Your task to perform on an android device: toggle sleep mode Image 0: 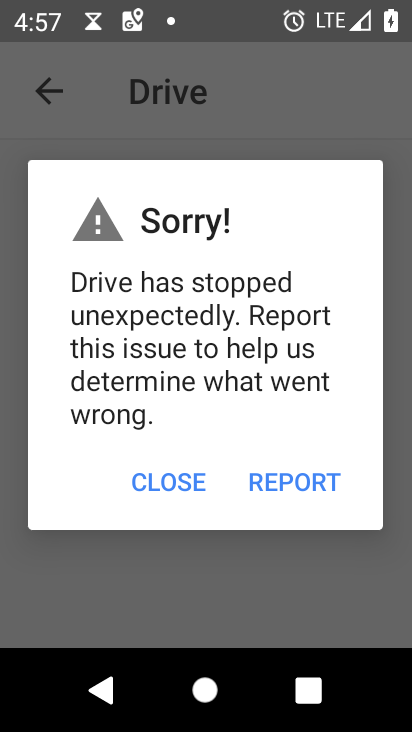
Step 0: press home button
Your task to perform on an android device: toggle sleep mode Image 1: 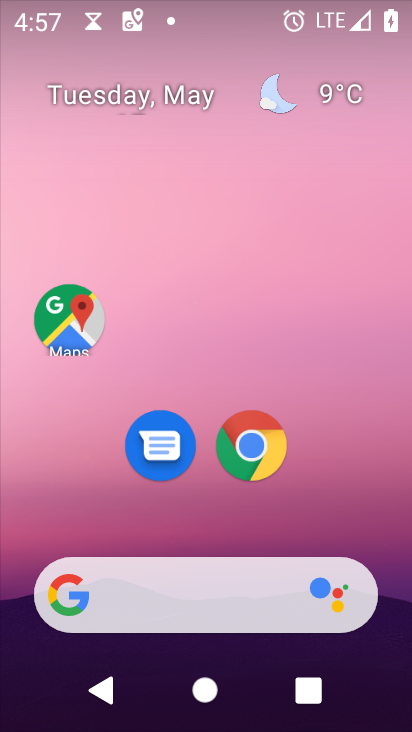
Step 1: drag from (237, 570) to (231, 72)
Your task to perform on an android device: toggle sleep mode Image 2: 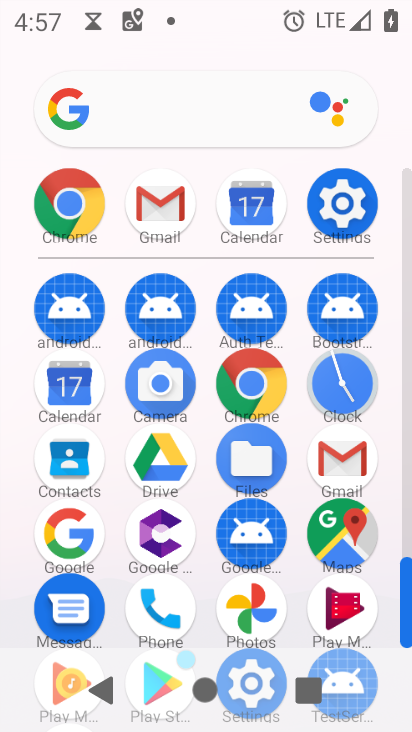
Step 2: click (348, 211)
Your task to perform on an android device: toggle sleep mode Image 3: 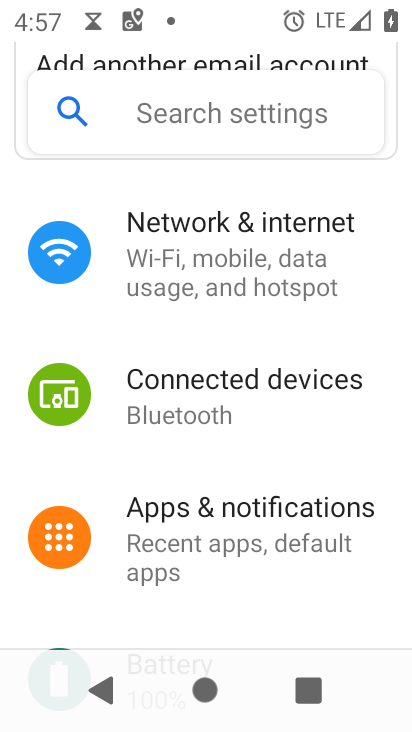
Step 3: drag from (291, 529) to (277, 223)
Your task to perform on an android device: toggle sleep mode Image 4: 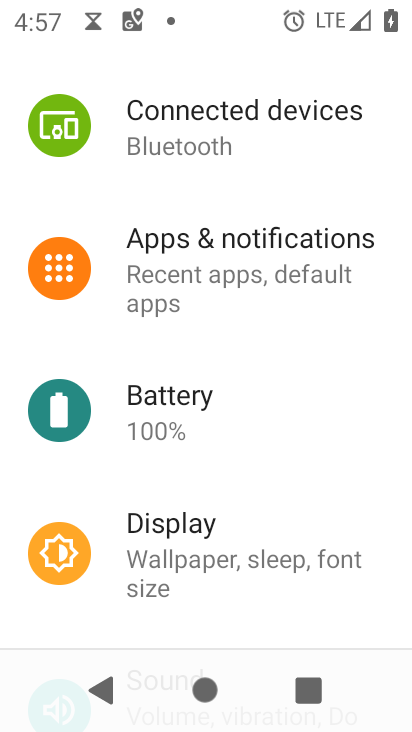
Step 4: click (262, 559)
Your task to perform on an android device: toggle sleep mode Image 5: 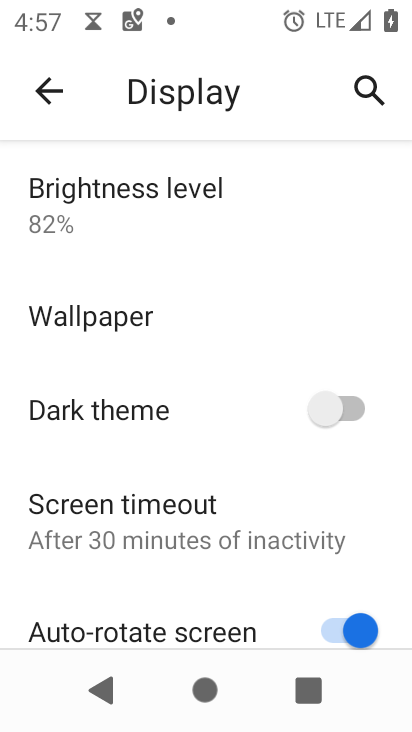
Step 5: task complete